Your task to perform on an android device: uninstall "PUBG MOBILE" Image 0: 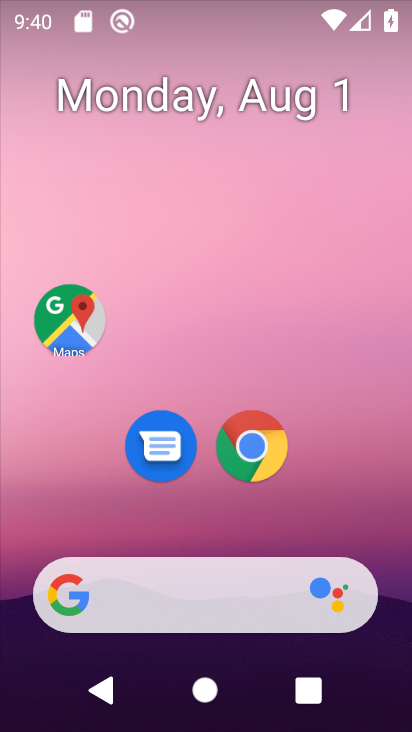
Step 0: drag from (225, 439) to (261, 74)
Your task to perform on an android device: uninstall "PUBG MOBILE" Image 1: 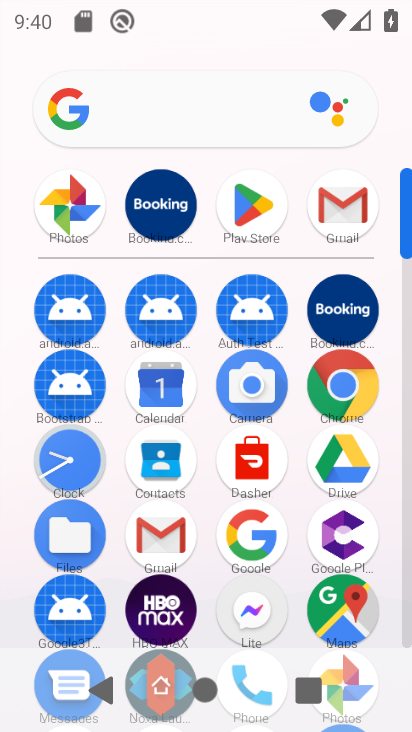
Step 1: click (247, 185)
Your task to perform on an android device: uninstall "PUBG MOBILE" Image 2: 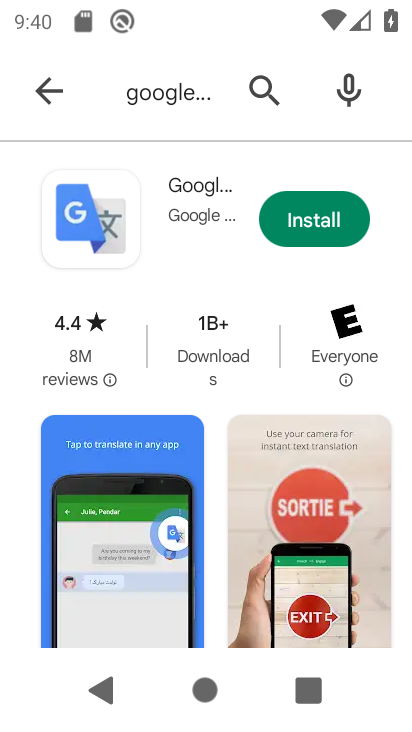
Step 2: click (257, 79)
Your task to perform on an android device: uninstall "PUBG MOBILE" Image 3: 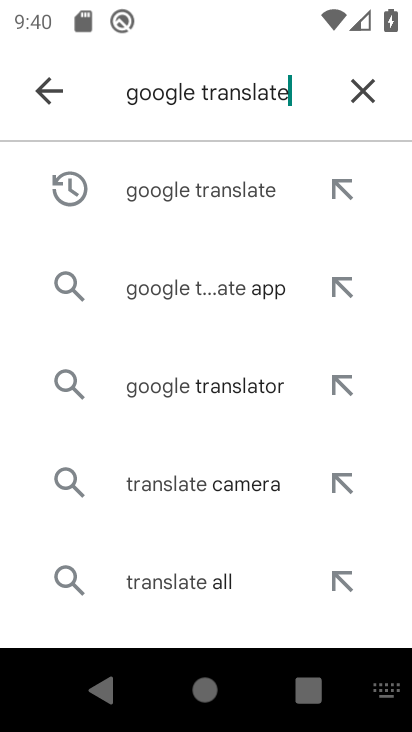
Step 3: click (356, 79)
Your task to perform on an android device: uninstall "PUBG MOBILE" Image 4: 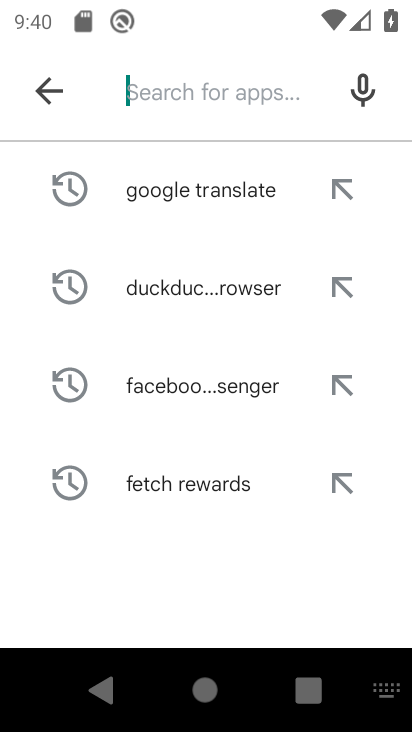
Step 4: type "PUBG MOBILE"
Your task to perform on an android device: uninstall "PUBG MOBILE" Image 5: 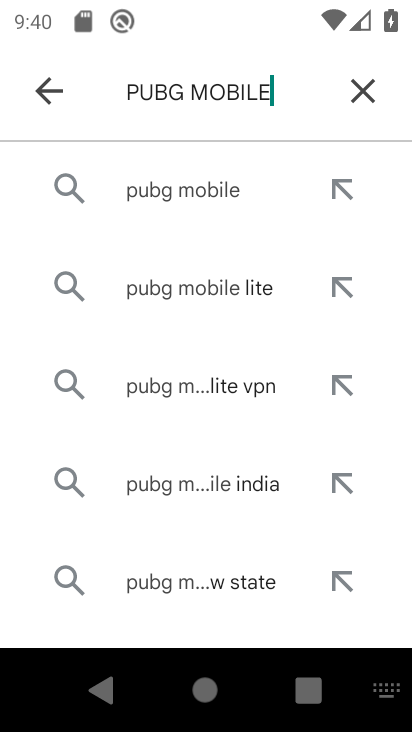
Step 5: type ""
Your task to perform on an android device: uninstall "PUBG MOBILE" Image 6: 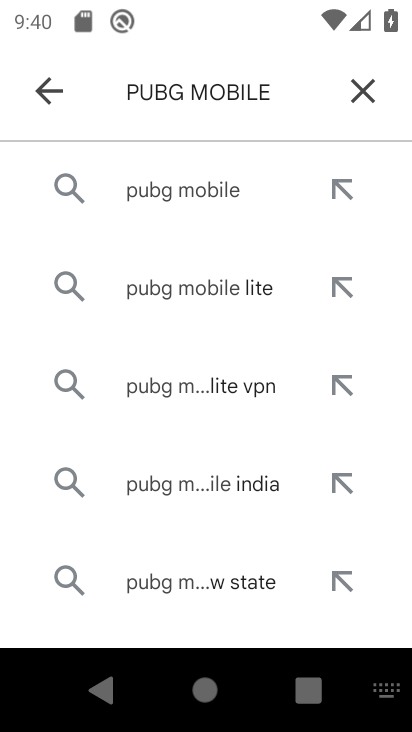
Step 6: click (189, 175)
Your task to perform on an android device: uninstall "PUBG MOBILE" Image 7: 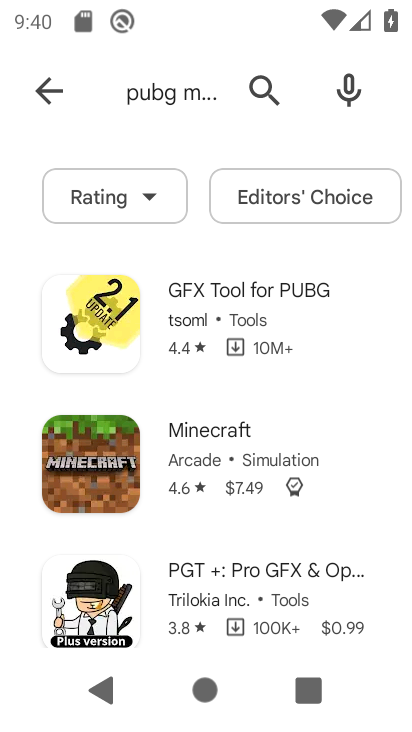
Step 7: task complete